Your task to perform on an android device: open app "Pandora - Music & Podcasts" (install if not already installed) Image 0: 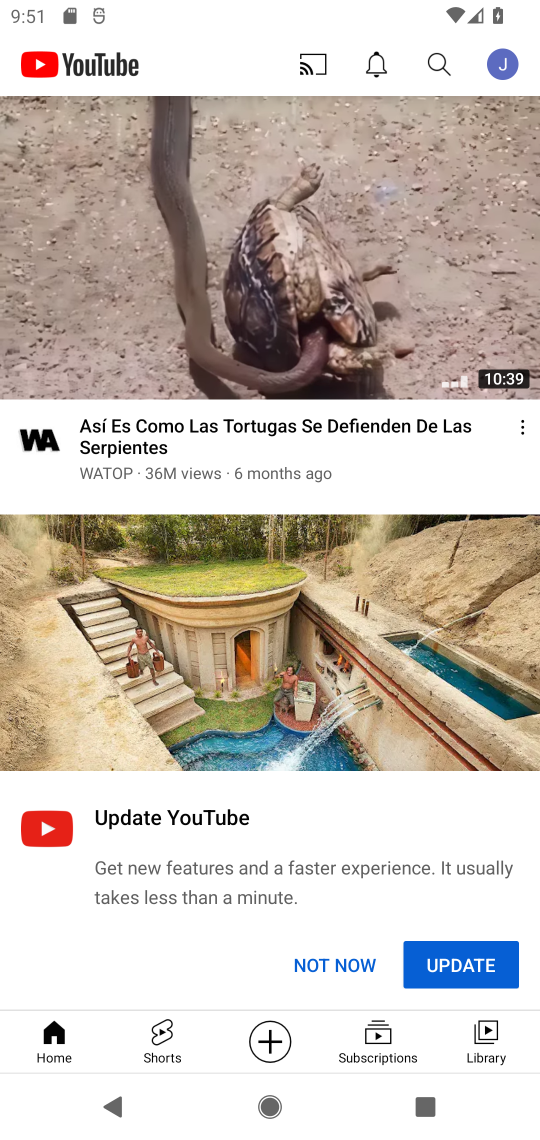
Step 0: press home button
Your task to perform on an android device: open app "Pandora - Music & Podcasts" (install if not already installed) Image 1: 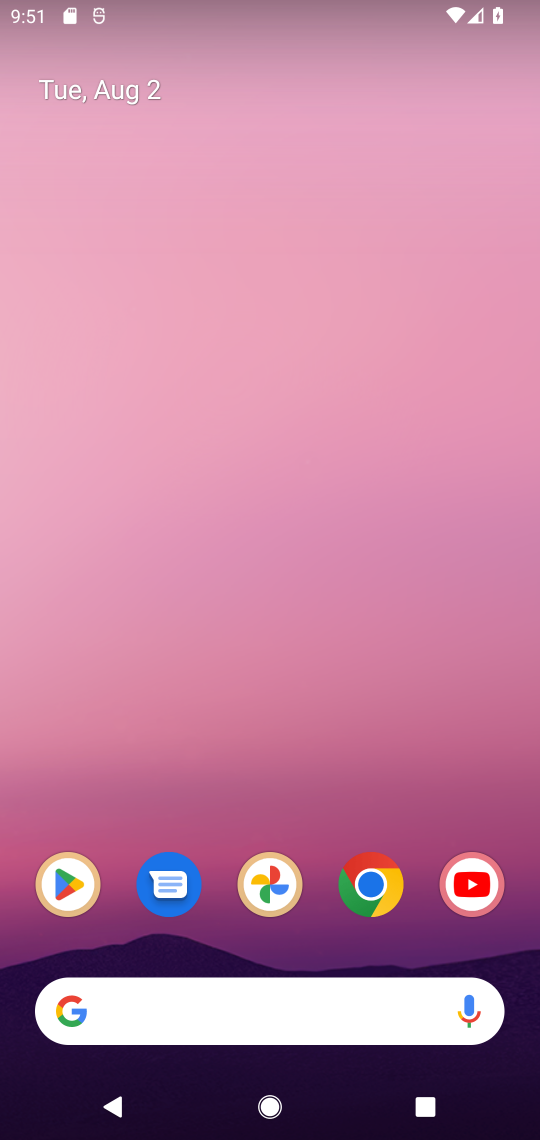
Step 1: click (61, 876)
Your task to perform on an android device: open app "Pandora - Music & Podcasts" (install if not already installed) Image 2: 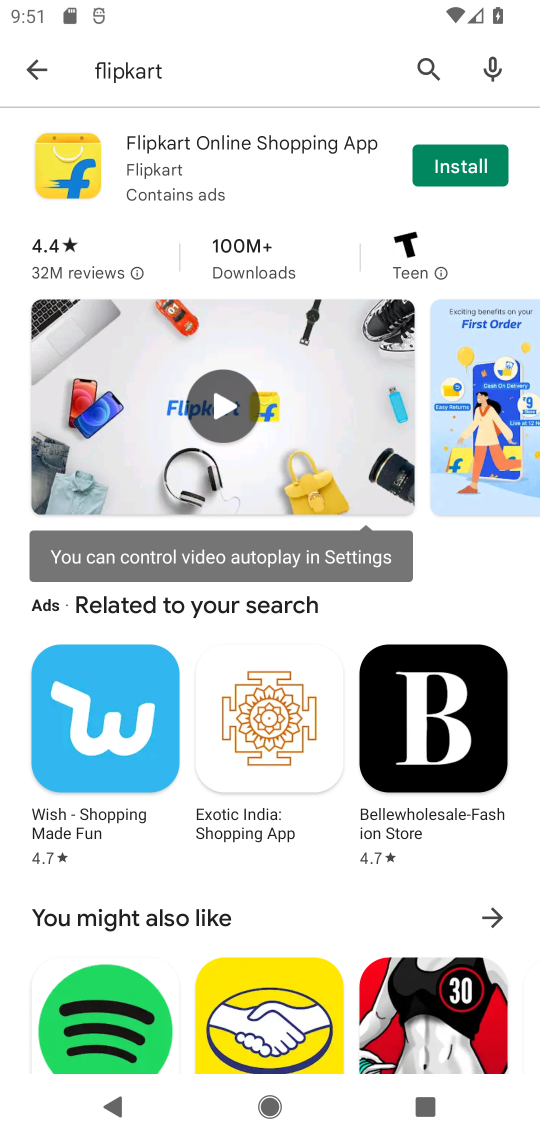
Step 2: click (193, 66)
Your task to perform on an android device: open app "Pandora - Music & Podcasts" (install if not already installed) Image 3: 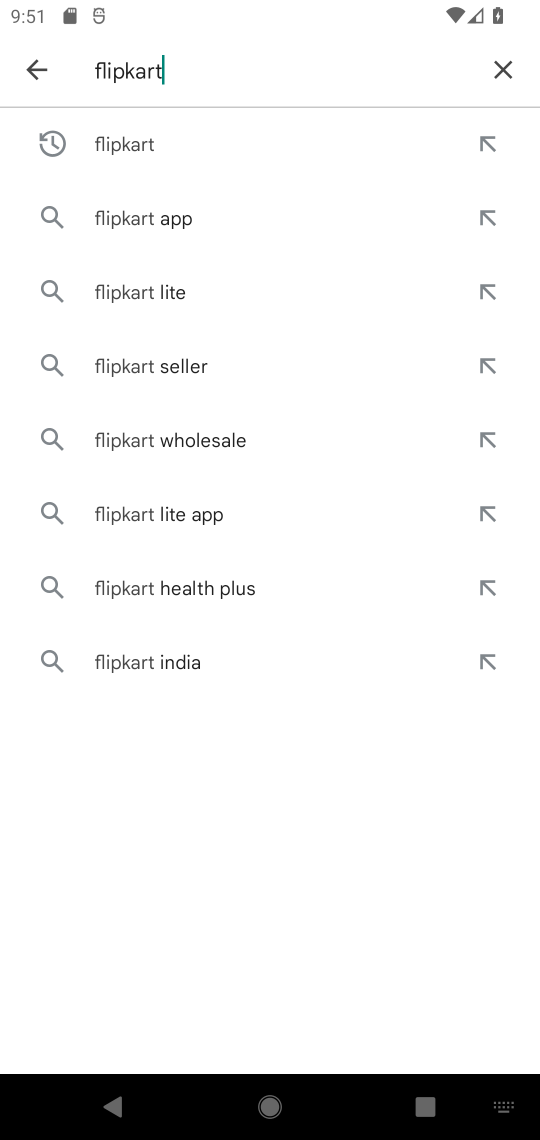
Step 3: click (493, 63)
Your task to perform on an android device: open app "Pandora - Music & Podcasts" (install if not already installed) Image 4: 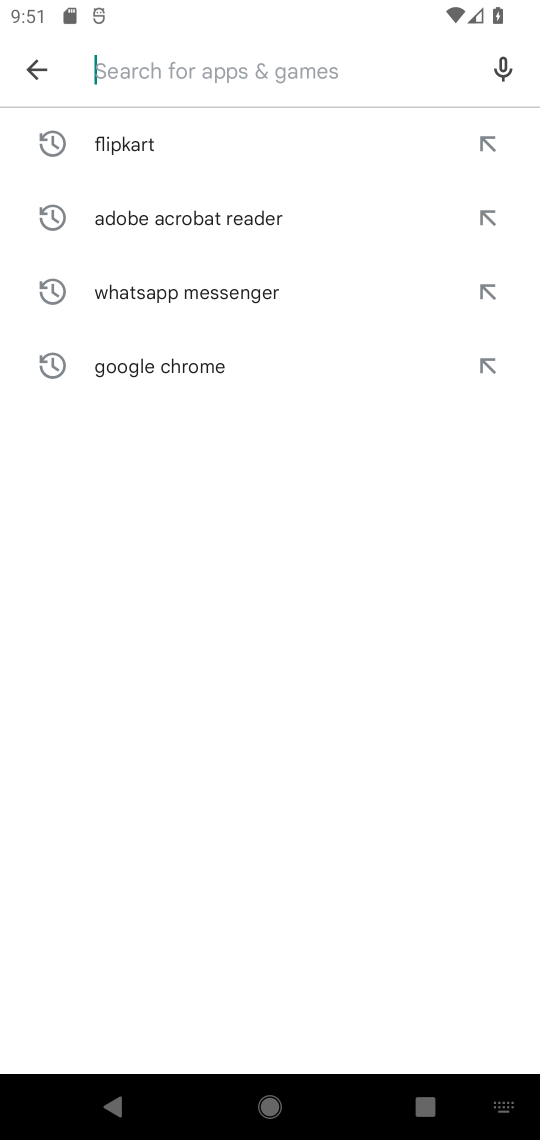
Step 4: type "pandora"
Your task to perform on an android device: open app "Pandora - Music & Podcasts" (install if not already installed) Image 5: 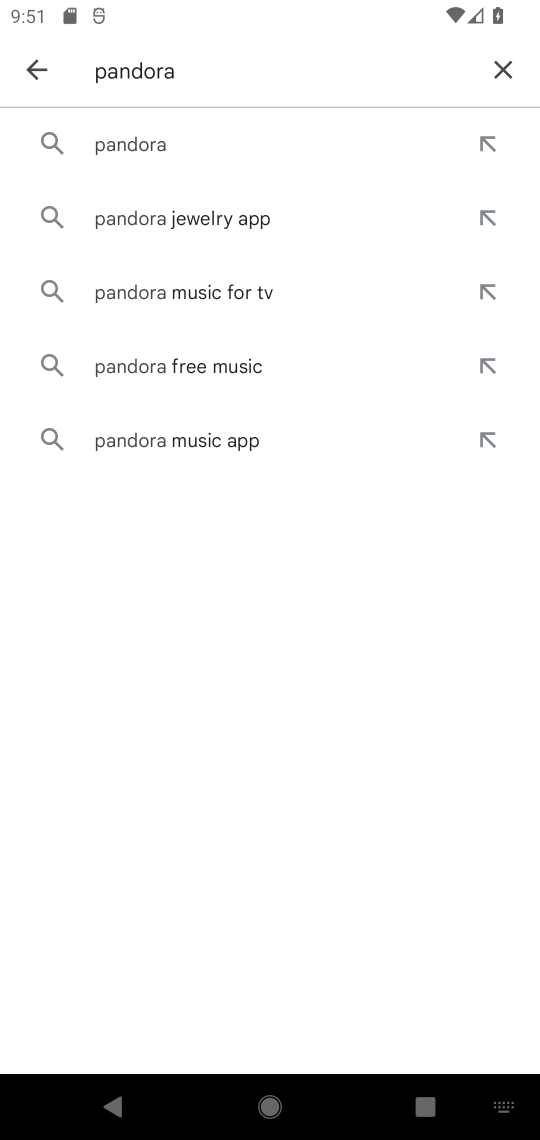
Step 5: click (178, 141)
Your task to perform on an android device: open app "Pandora - Music & Podcasts" (install if not already installed) Image 6: 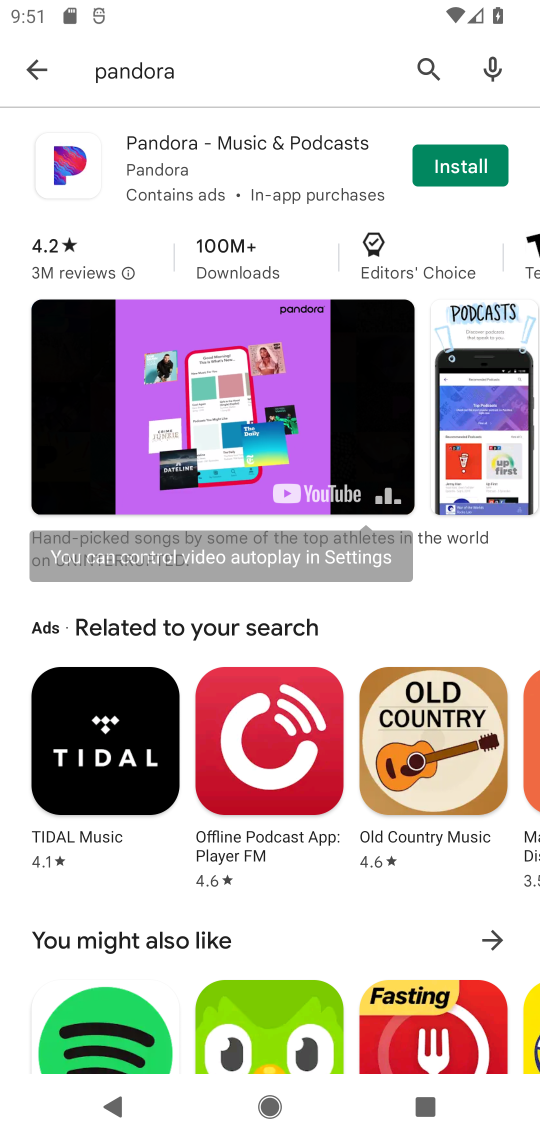
Step 6: click (449, 168)
Your task to perform on an android device: open app "Pandora - Music & Podcasts" (install if not already installed) Image 7: 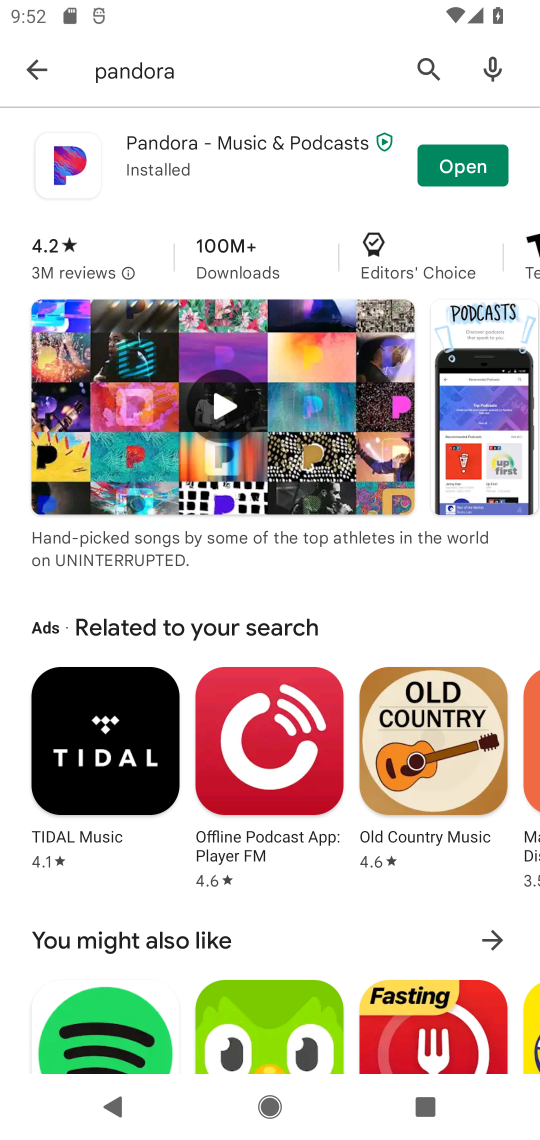
Step 7: click (483, 161)
Your task to perform on an android device: open app "Pandora - Music & Podcasts" (install if not already installed) Image 8: 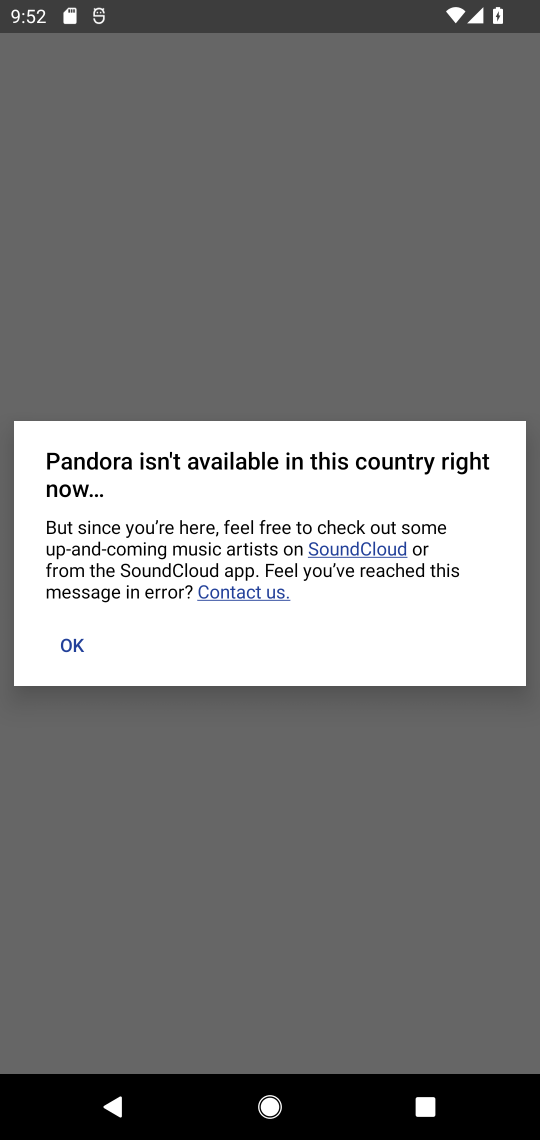
Step 8: click (70, 653)
Your task to perform on an android device: open app "Pandora - Music & Podcasts" (install if not already installed) Image 9: 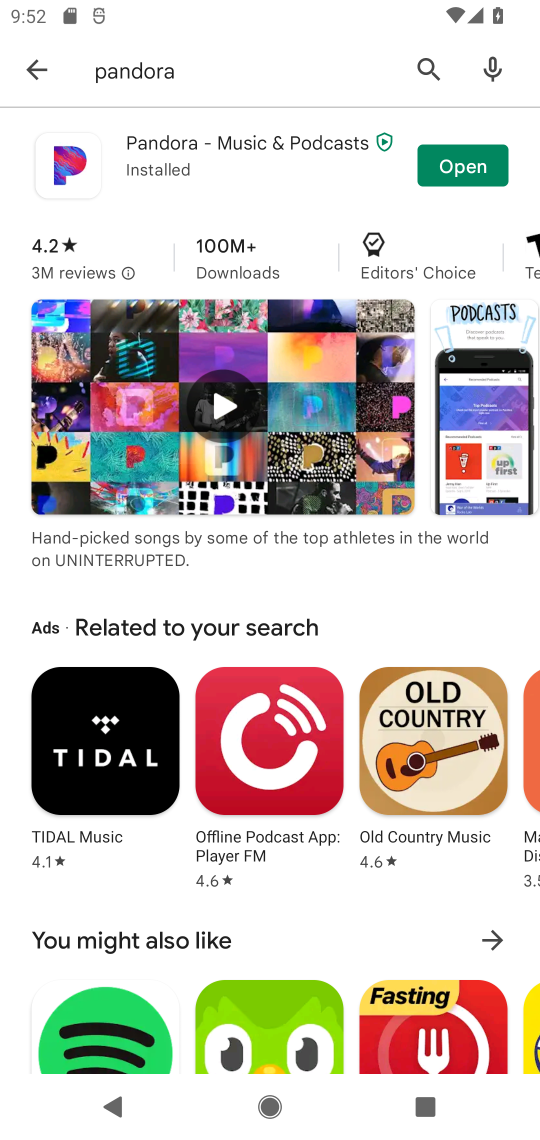
Step 9: click (449, 165)
Your task to perform on an android device: open app "Pandora - Music & Podcasts" (install if not already installed) Image 10: 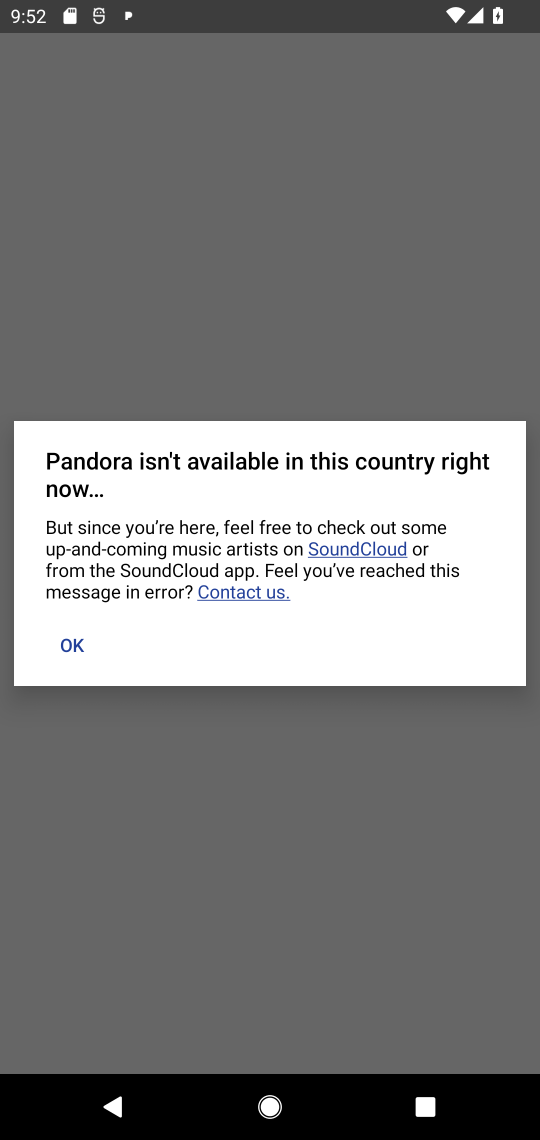
Step 10: click (71, 643)
Your task to perform on an android device: open app "Pandora - Music & Podcasts" (install if not already installed) Image 11: 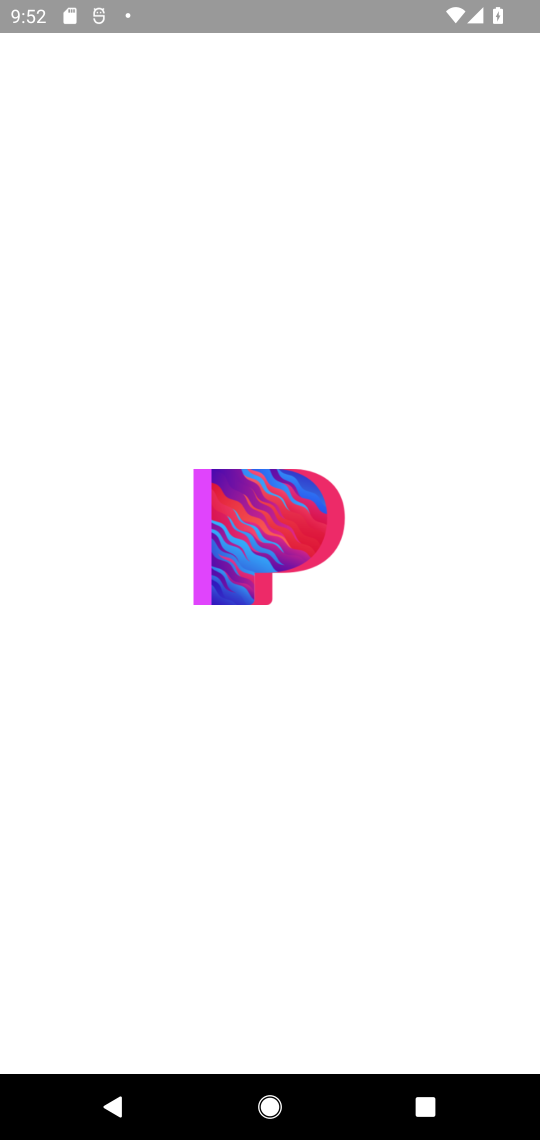
Step 11: task complete